Your task to perform on an android device: empty trash in the gmail app Image 0: 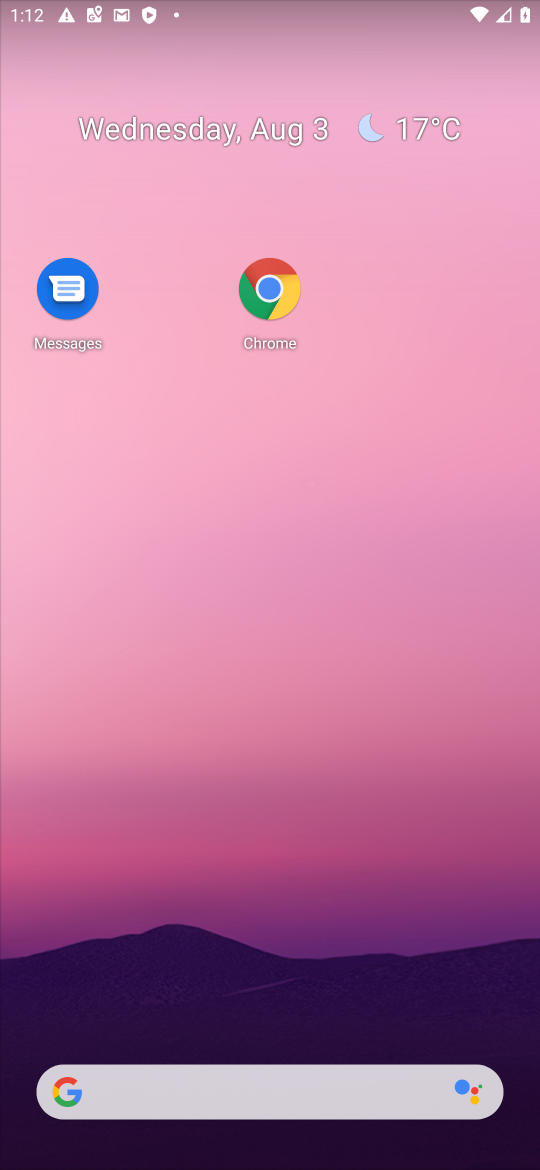
Step 0: drag from (330, 1054) to (292, 14)
Your task to perform on an android device: empty trash in the gmail app Image 1: 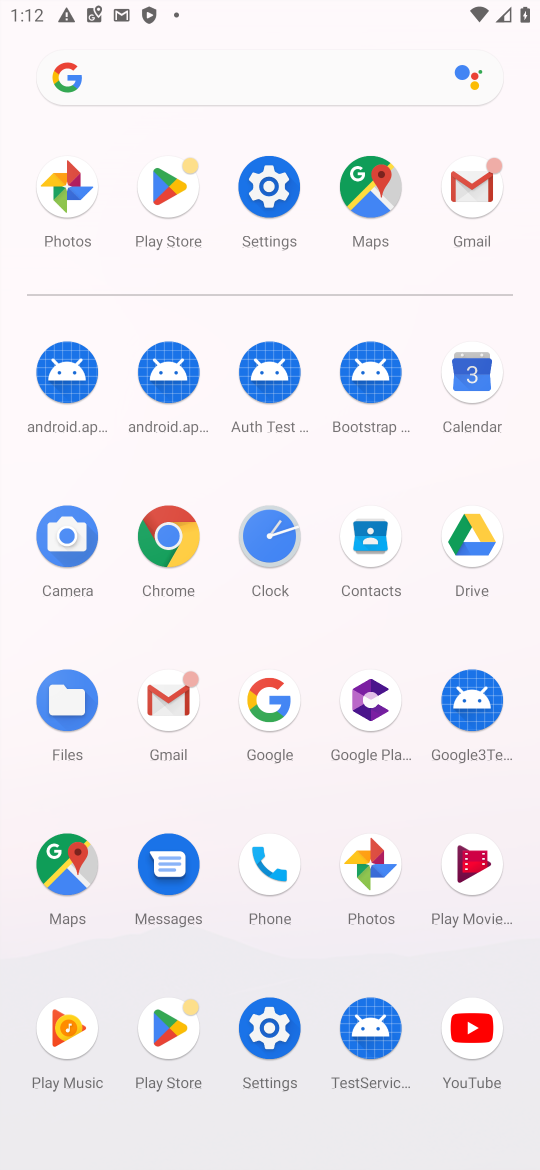
Step 1: click (284, 181)
Your task to perform on an android device: empty trash in the gmail app Image 2: 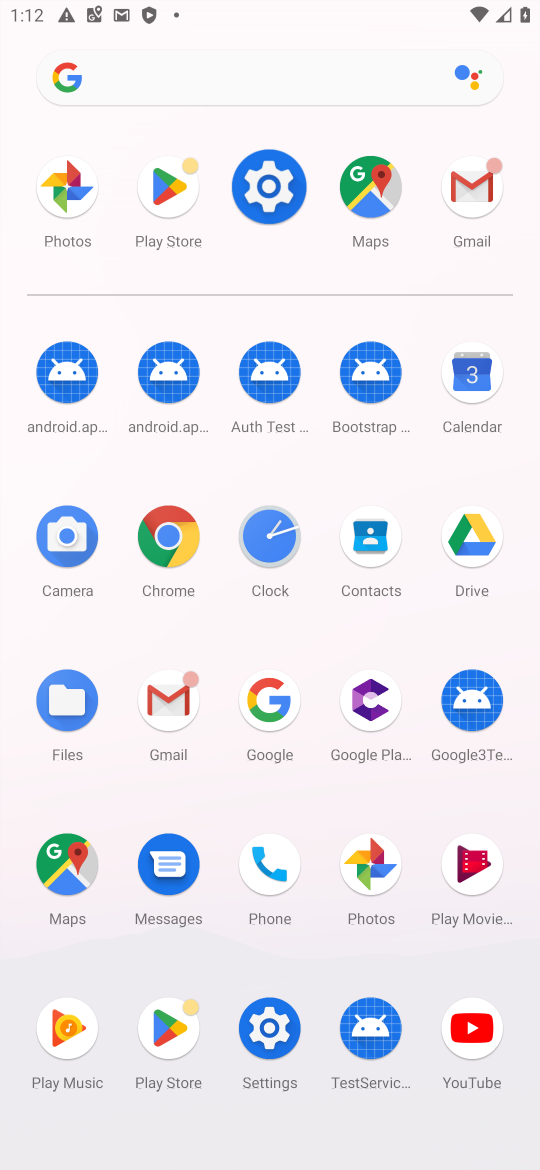
Step 2: click (284, 181)
Your task to perform on an android device: empty trash in the gmail app Image 3: 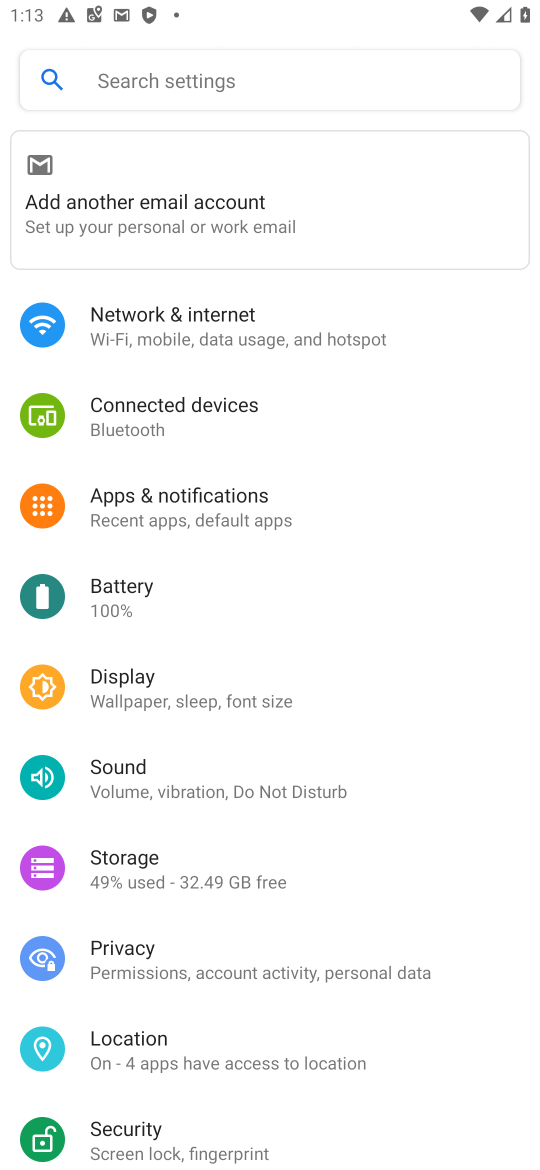
Step 3: task complete